Your task to perform on an android device: What's the weather? Image 0: 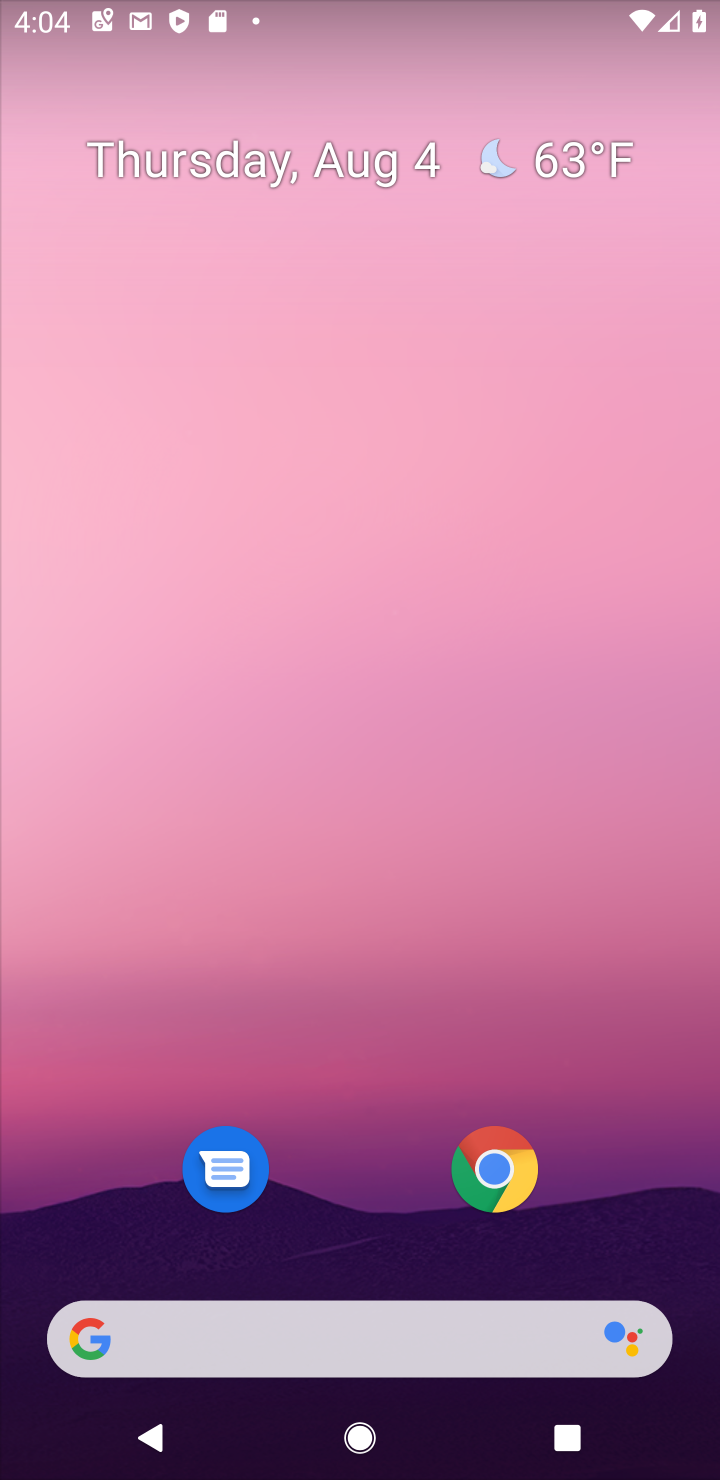
Step 0: click (307, 1338)
Your task to perform on an android device: What's the weather? Image 1: 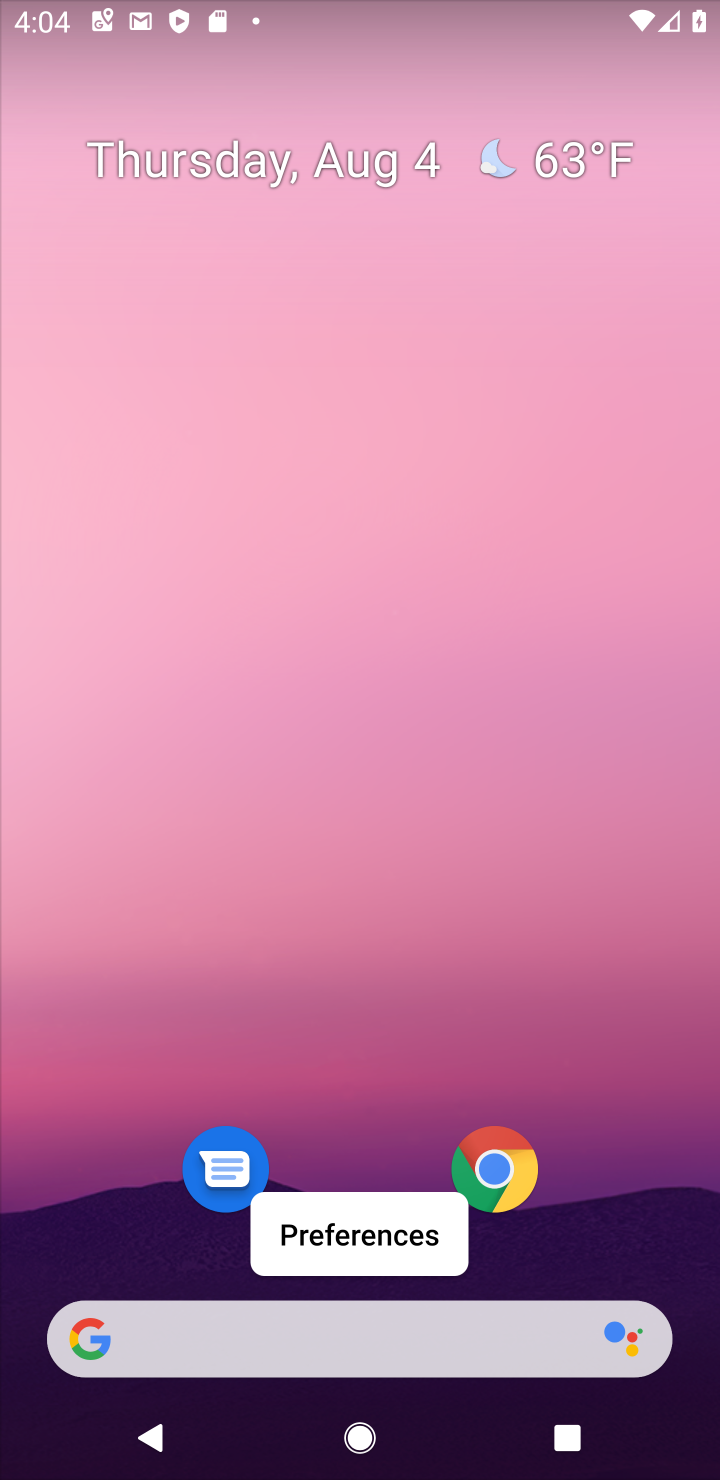
Step 1: click (312, 1338)
Your task to perform on an android device: What's the weather? Image 2: 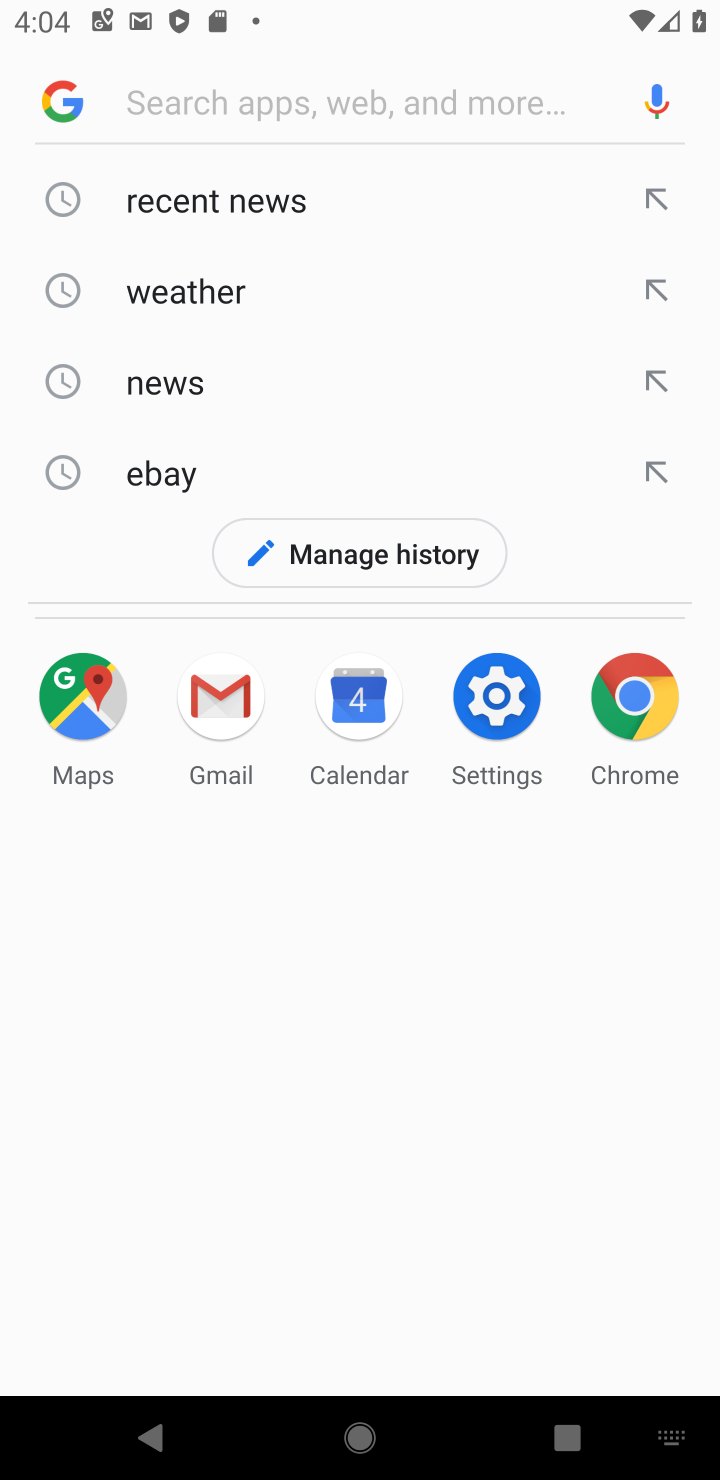
Step 2: click (241, 307)
Your task to perform on an android device: What's the weather? Image 3: 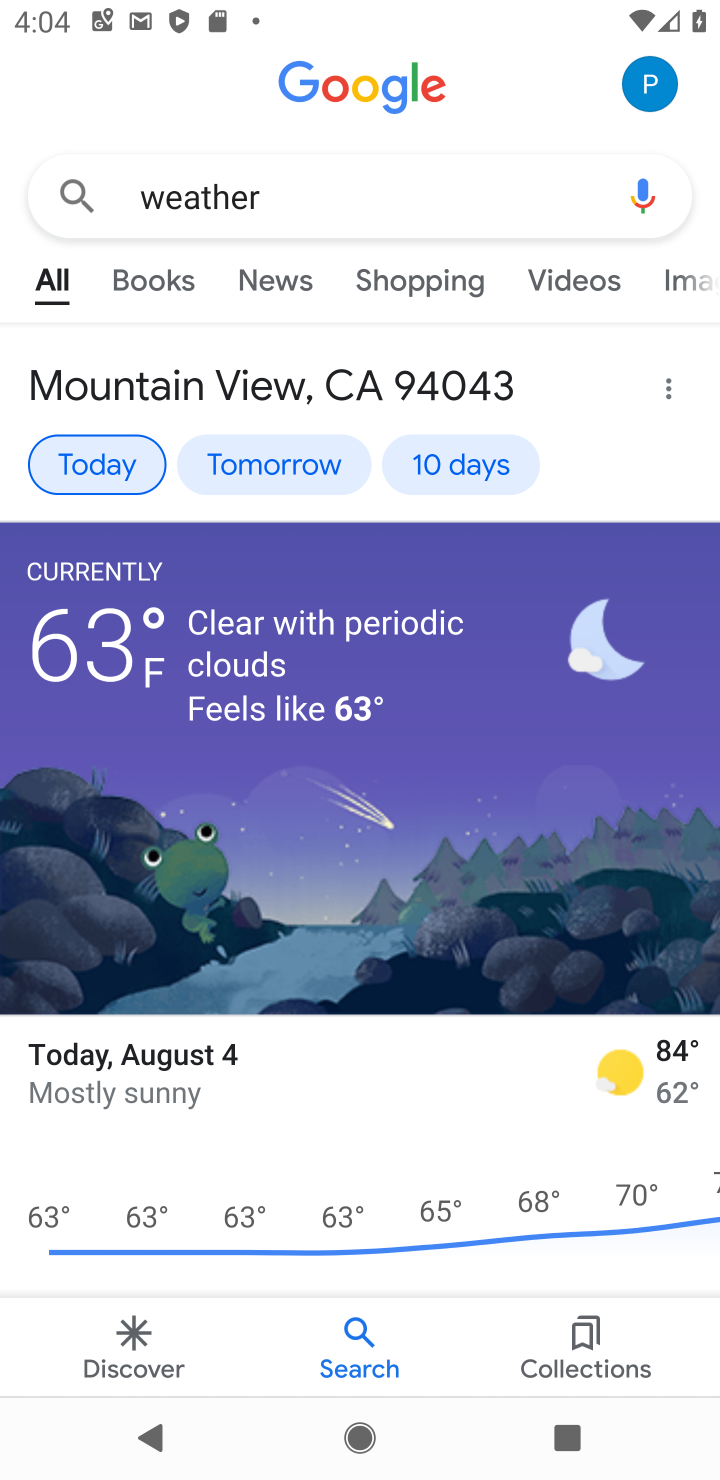
Step 3: task complete